Your task to perform on an android device: Go to Reddit.com Image 0: 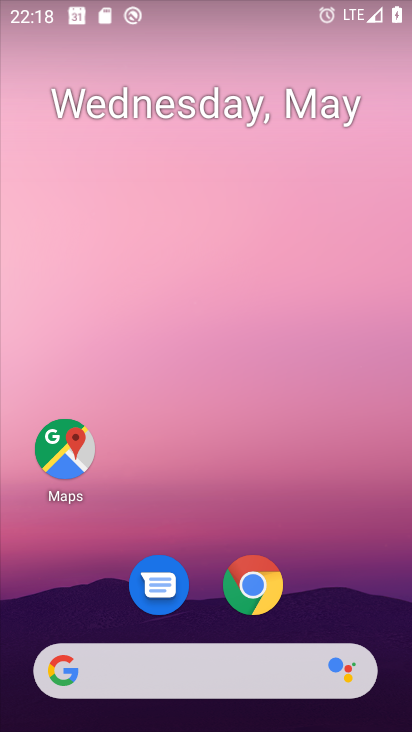
Step 0: click (235, 667)
Your task to perform on an android device: Go to Reddit.com Image 1: 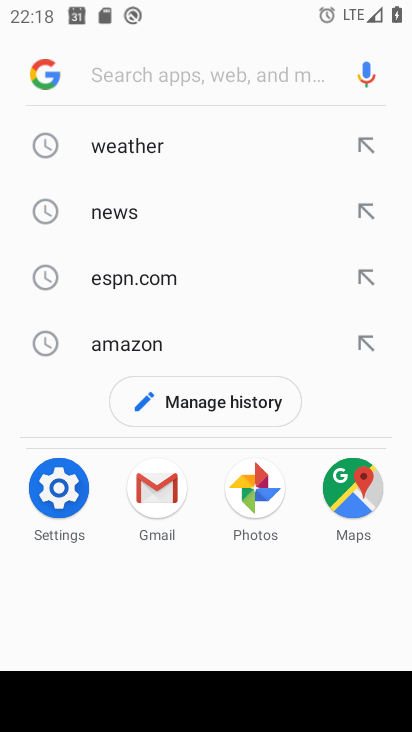
Step 1: type "reddit.com"
Your task to perform on an android device: Go to Reddit.com Image 2: 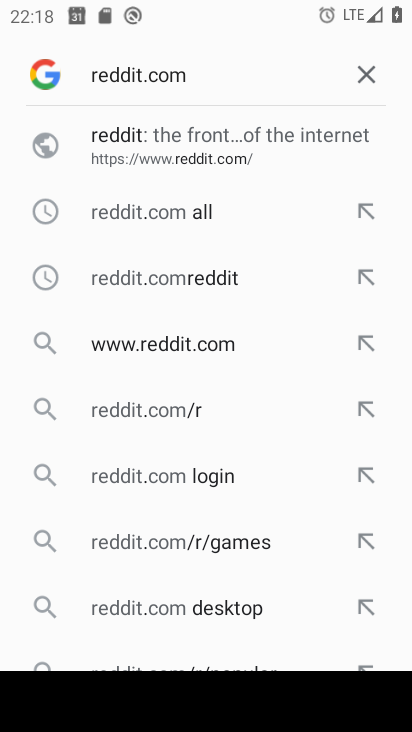
Step 2: click (145, 135)
Your task to perform on an android device: Go to Reddit.com Image 3: 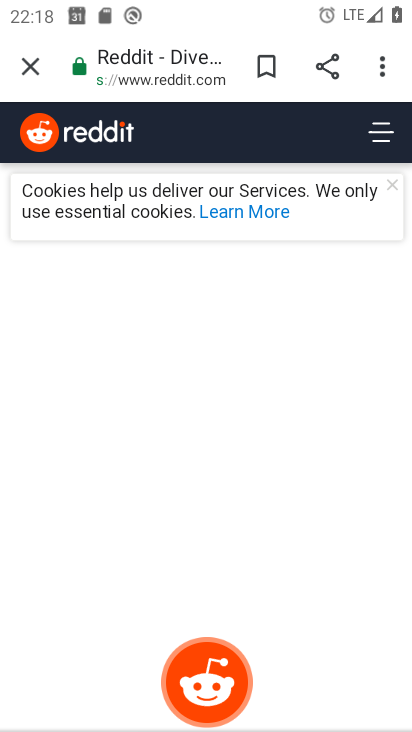
Step 3: task complete